Your task to perform on an android device: choose inbox layout in the gmail app Image 0: 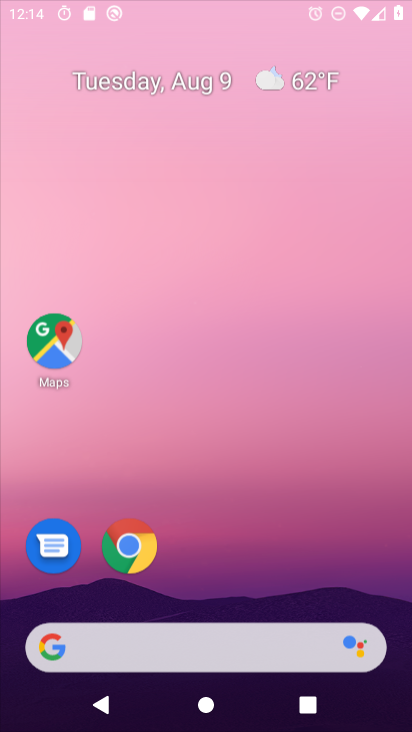
Step 0: press home button
Your task to perform on an android device: choose inbox layout in the gmail app Image 1: 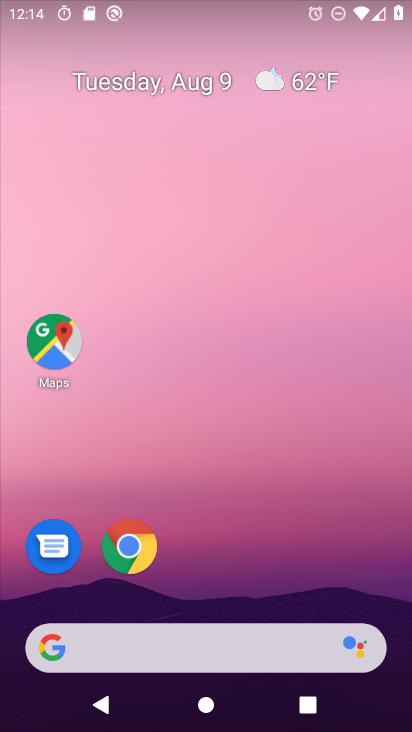
Step 1: drag from (224, 599) to (219, 134)
Your task to perform on an android device: choose inbox layout in the gmail app Image 2: 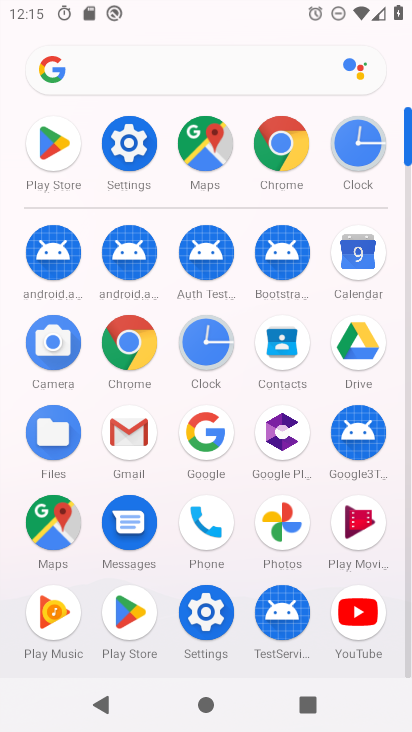
Step 2: click (125, 422)
Your task to perform on an android device: choose inbox layout in the gmail app Image 3: 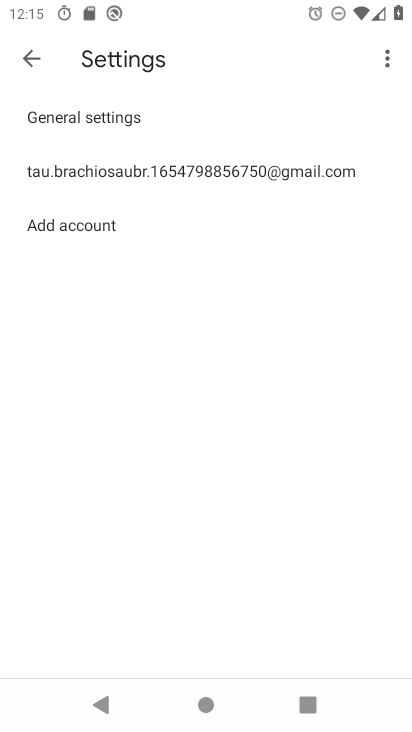
Step 3: click (361, 170)
Your task to perform on an android device: choose inbox layout in the gmail app Image 4: 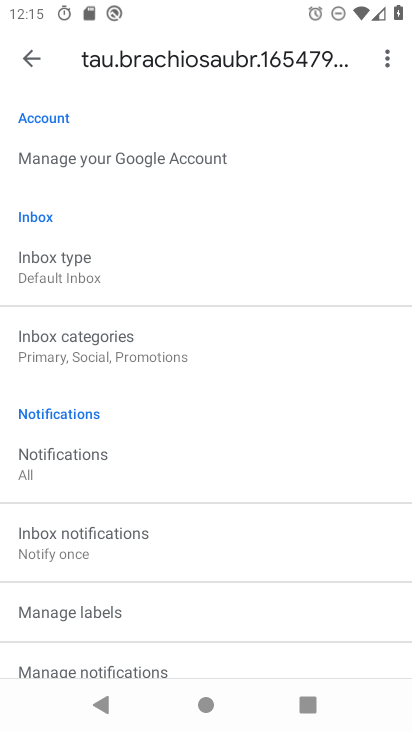
Step 4: click (116, 266)
Your task to perform on an android device: choose inbox layout in the gmail app Image 5: 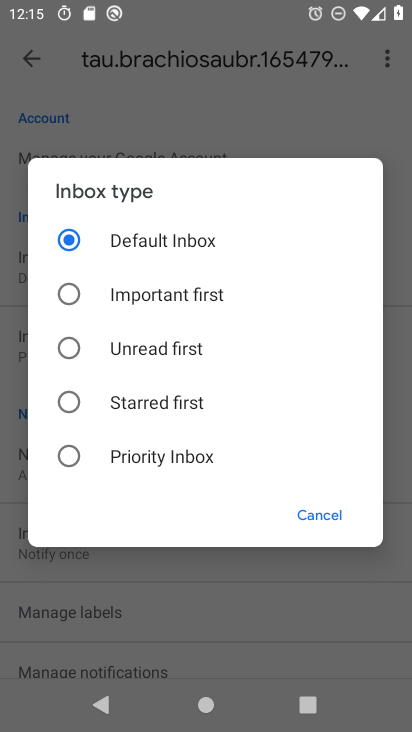
Step 5: click (65, 457)
Your task to perform on an android device: choose inbox layout in the gmail app Image 6: 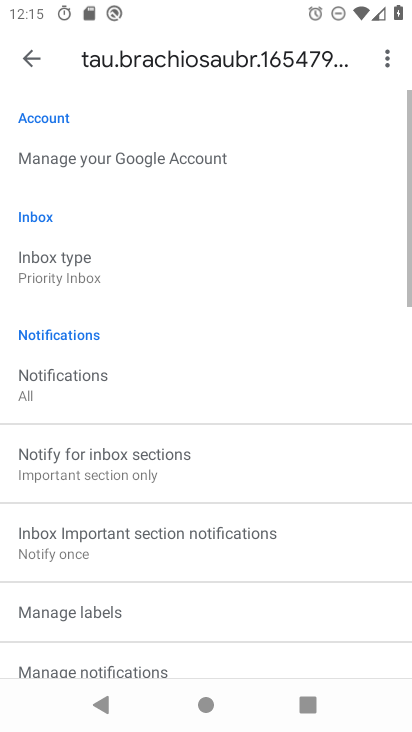
Step 6: task complete